Your task to perform on an android device: Open Google Maps Image 0: 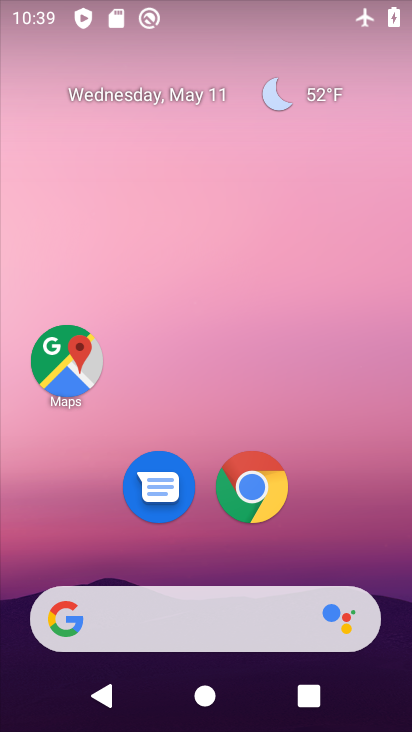
Step 0: drag from (376, 520) to (301, 29)
Your task to perform on an android device: Open Google Maps Image 1: 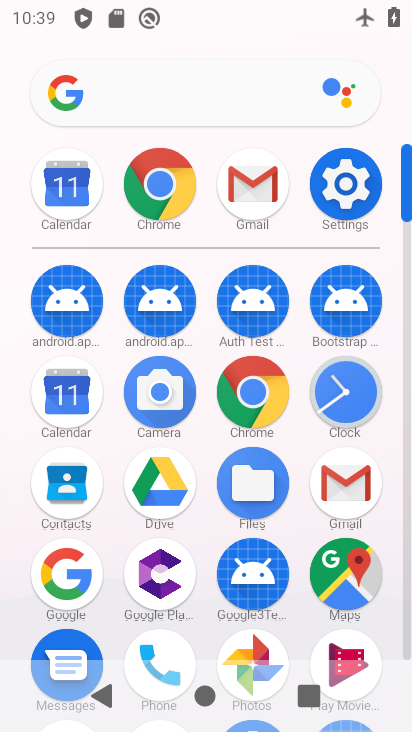
Step 1: drag from (1, 453) to (12, 244)
Your task to perform on an android device: Open Google Maps Image 2: 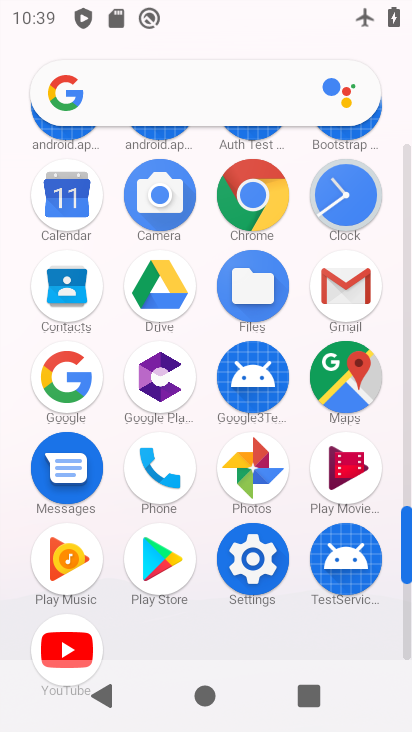
Step 2: click (343, 373)
Your task to perform on an android device: Open Google Maps Image 3: 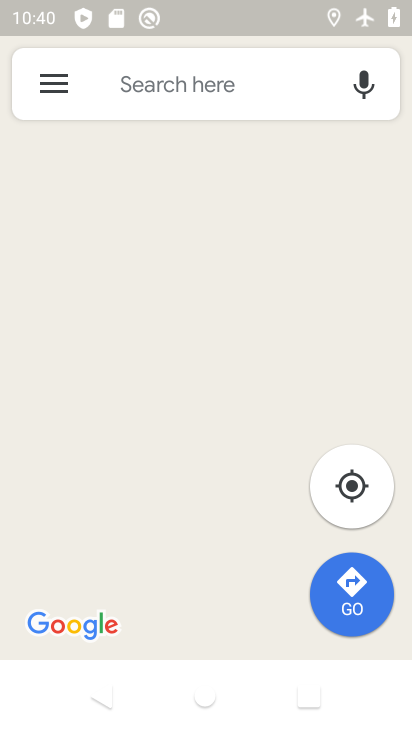
Step 3: task complete